Your task to perform on an android device: Search for pizza restaurants on Maps Image 0: 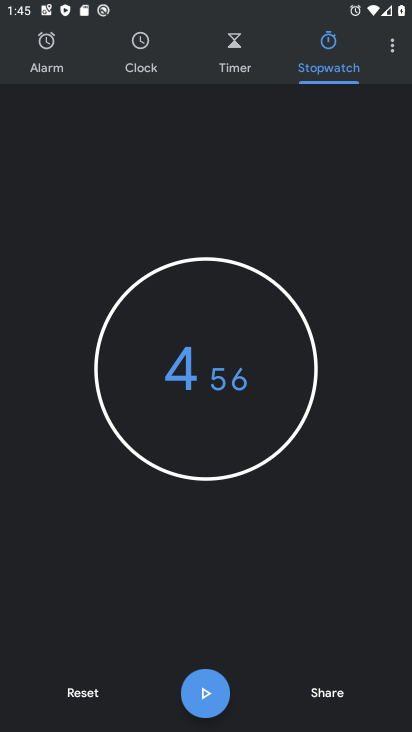
Step 0: press home button
Your task to perform on an android device: Search for pizza restaurants on Maps Image 1: 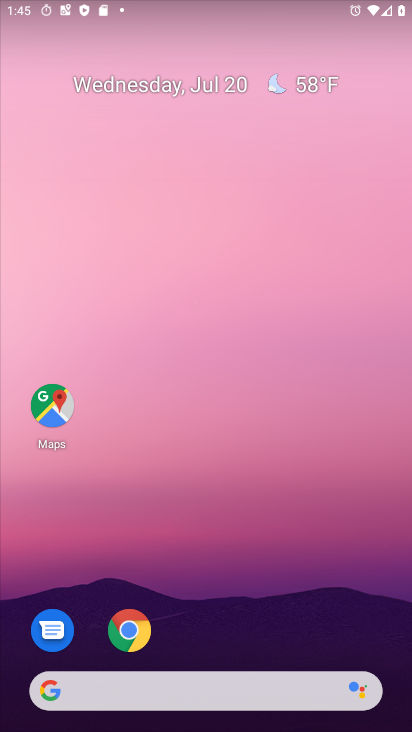
Step 1: click (58, 400)
Your task to perform on an android device: Search for pizza restaurants on Maps Image 2: 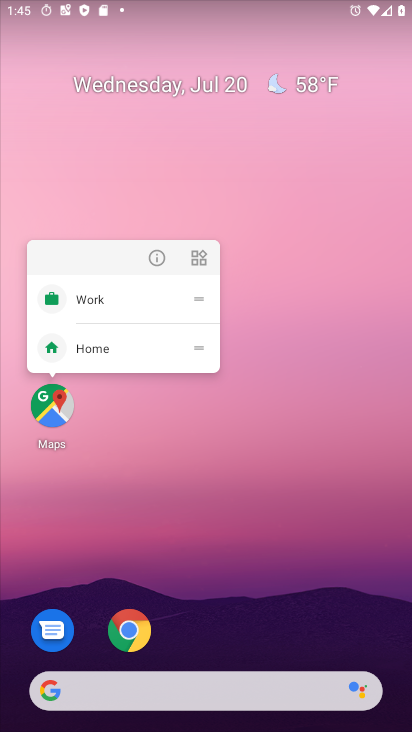
Step 2: click (54, 406)
Your task to perform on an android device: Search for pizza restaurants on Maps Image 3: 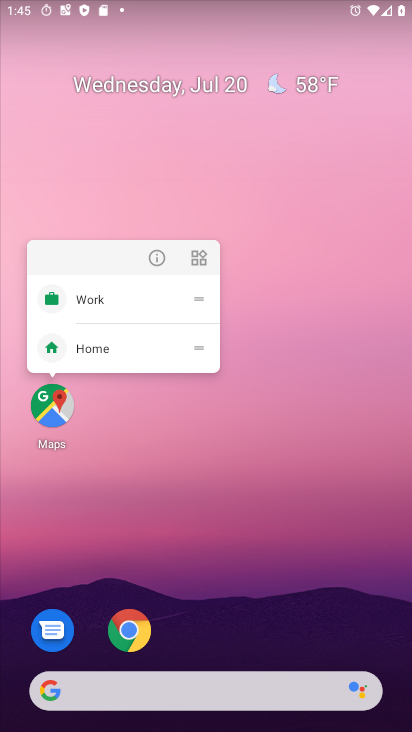
Step 3: click (49, 412)
Your task to perform on an android device: Search for pizza restaurants on Maps Image 4: 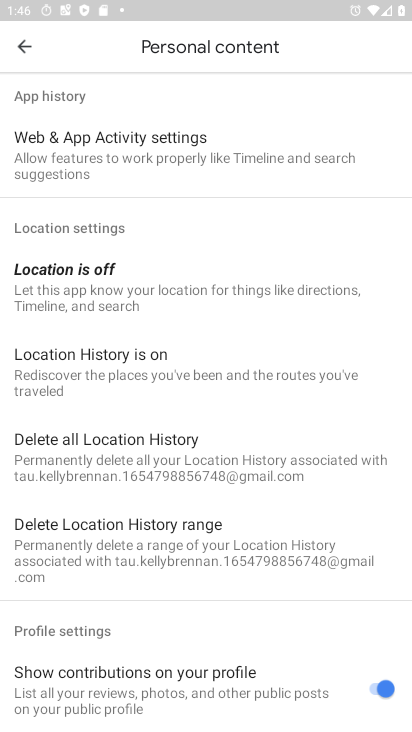
Step 4: click (22, 46)
Your task to perform on an android device: Search for pizza restaurants on Maps Image 5: 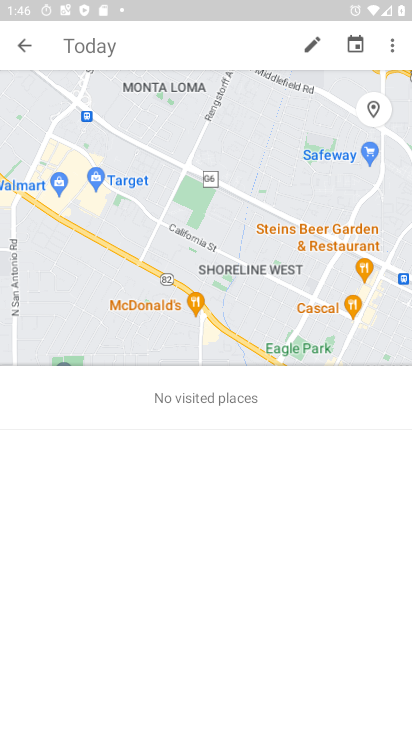
Step 5: click (22, 46)
Your task to perform on an android device: Search for pizza restaurants on Maps Image 6: 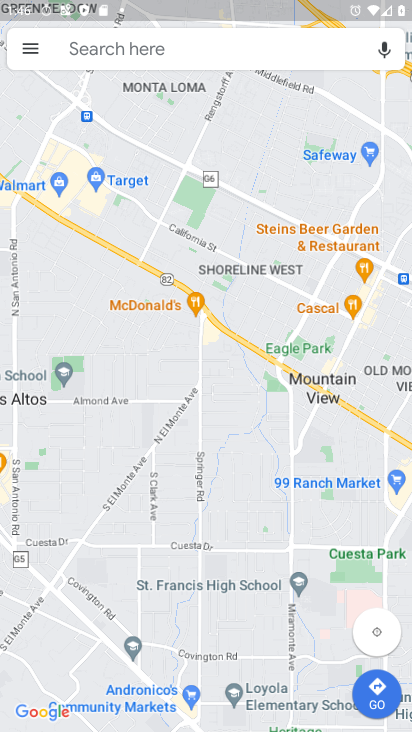
Step 6: click (137, 45)
Your task to perform on an android device: Search for pizza restaurants on Maps Image 7: 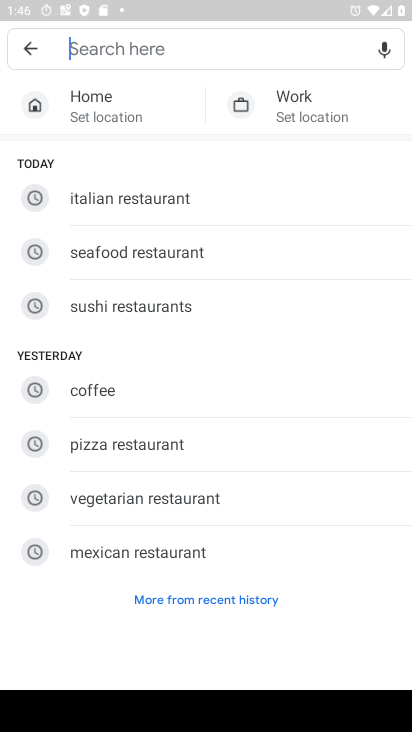
Step 7: click (151, 448)
Your task to perform on an android device: Search for pizza restaurants on Maps Image 8: 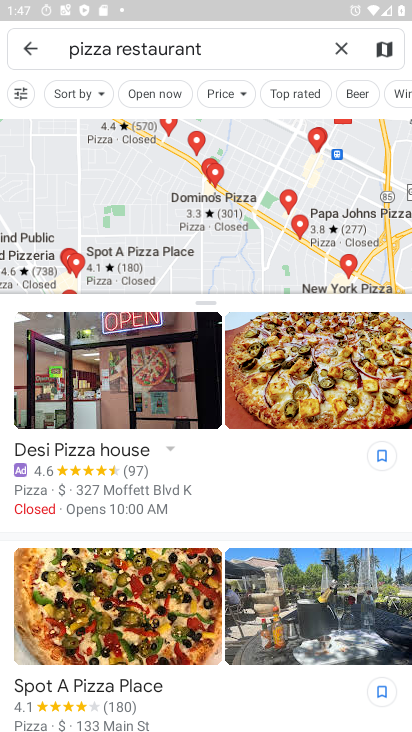
Step 8: task complete